Your task to perform on an android device: What's the weather today? Image 0: 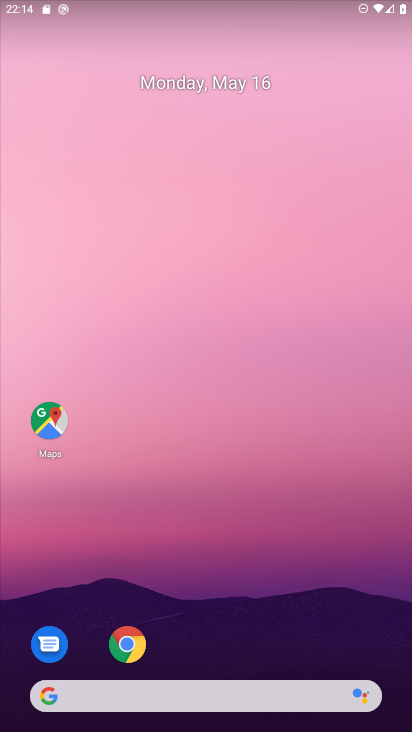
Step 0: click (211, 704)
Your task to perform on an android device: What's the weather today? Image 1: 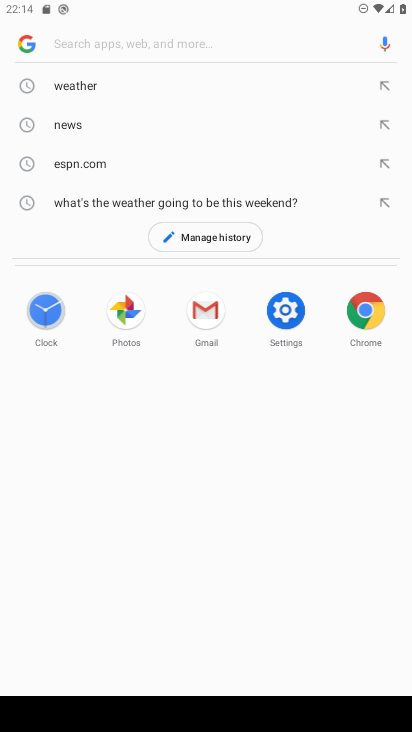
Step 1: click (49, 84)
Your task to perform on an android device: What's the weather today? Image 2: 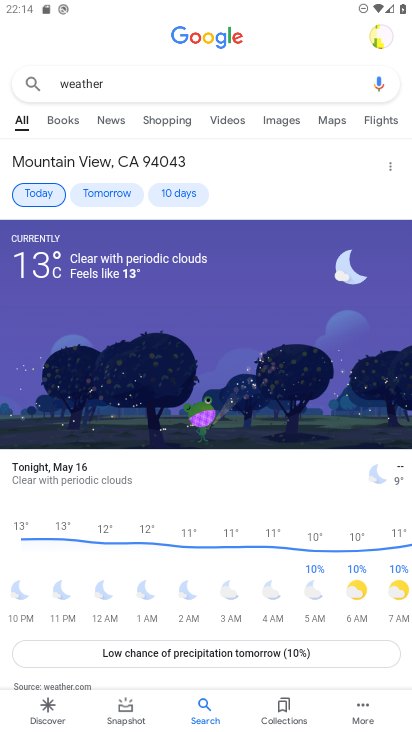
Step 2: task complete